Your task to perform on an android device: Go to internet settings Image 0: 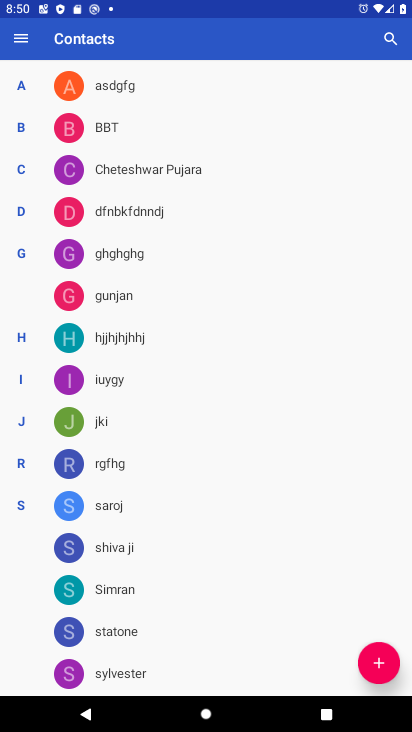
Step 0: press home button
Your task to perform on an android device: Go to internet settings Image 1: 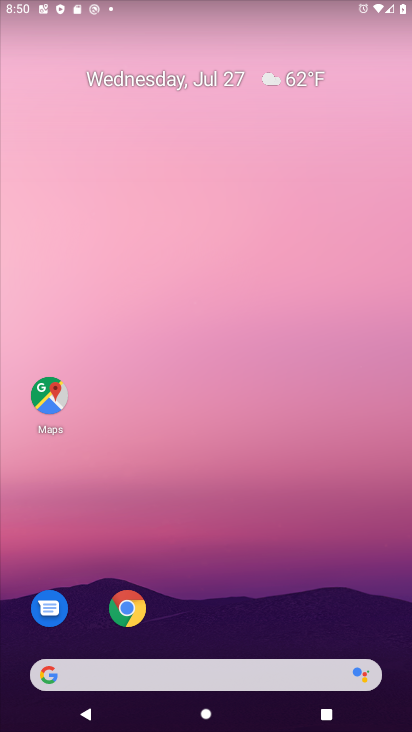
Step 1: drag from (256, 577) to (306, 70)
Your task to perform on an android device: Go to internet settings Image 2: 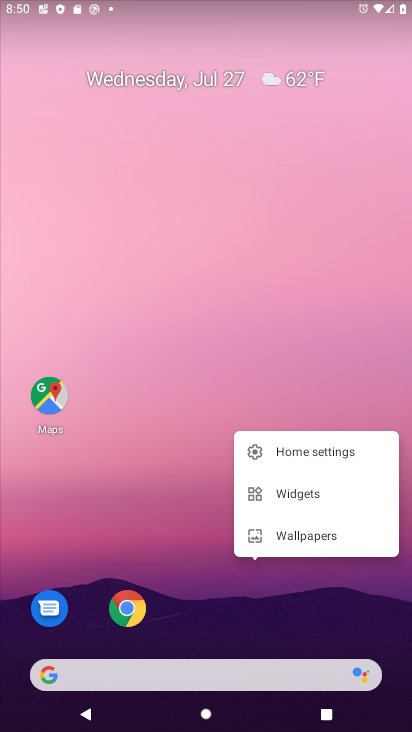
Step 2: click (106, 375)
Your task to perform on an android device: Go to internet settings Image 3: 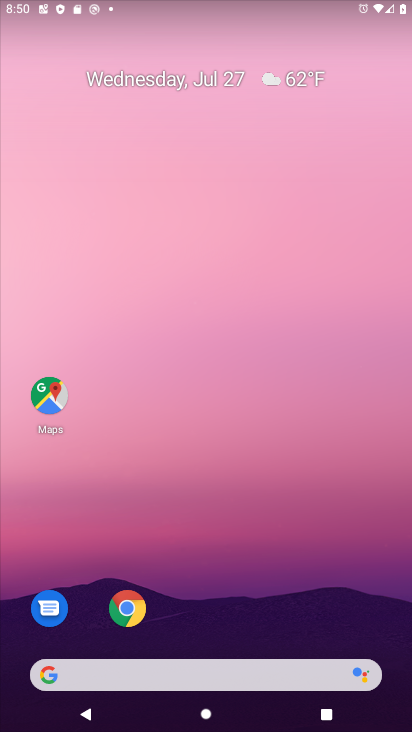
Step 3: drag from (326, 630) to (391, 200)
Your task to perform on an android device: Go to internet settings Image 4: 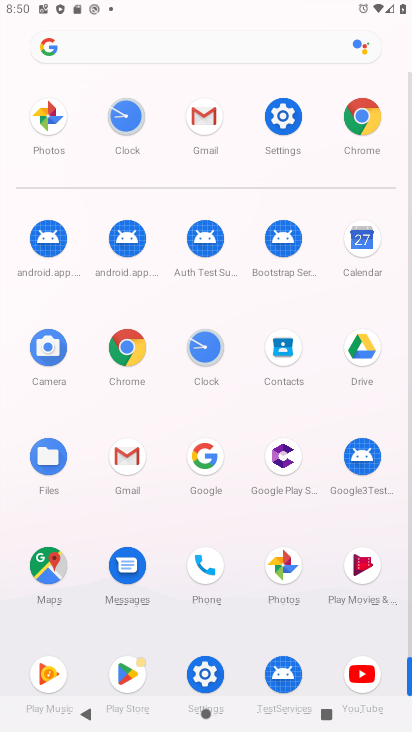
Step 4: click (280, 111)
Your task to perform on an android device: Go to internet settings Image 5: 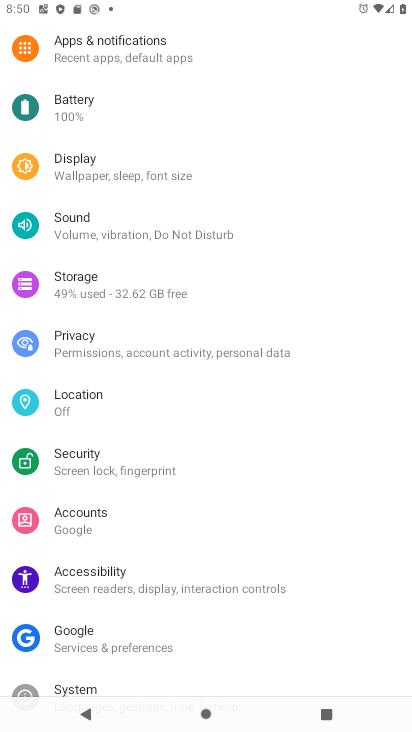
Step 5: drag from (145, 102) to (171, 344)
Your task to perform on an android device: Go to internet settings Image 6: 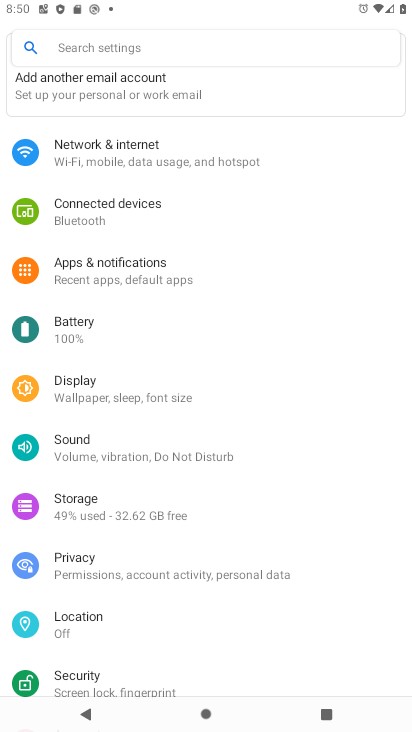
Step 6: click (149, 151)
Your task to perform on an android device: Go to internet settings Image 7: 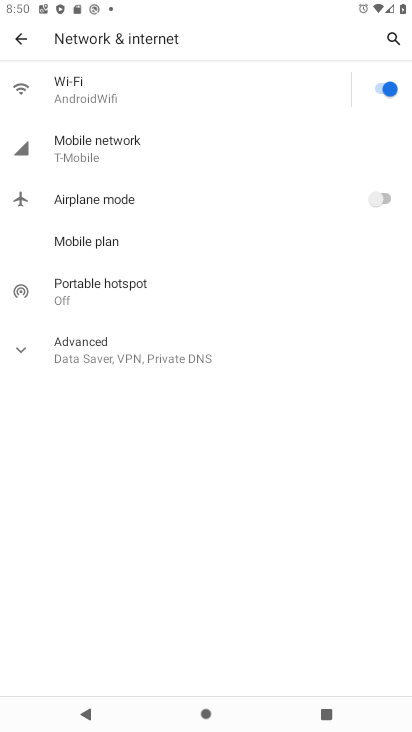
Step 7: task complete